Your task to perform on an android device: Open wifi settings Image 0: 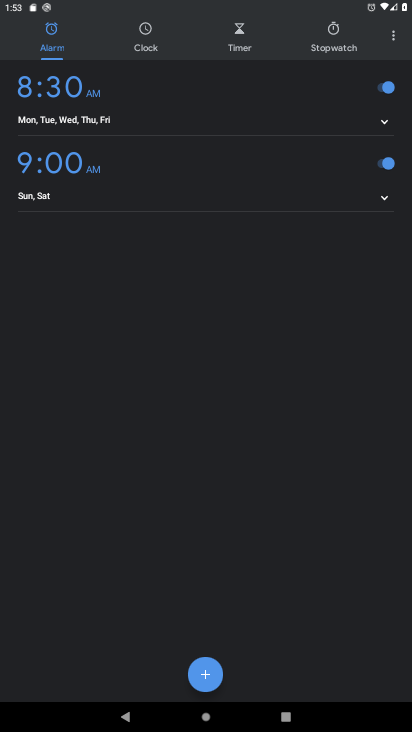
Step 0: press home button
Your task to perform on an android device: Open wifi settings Image 1: 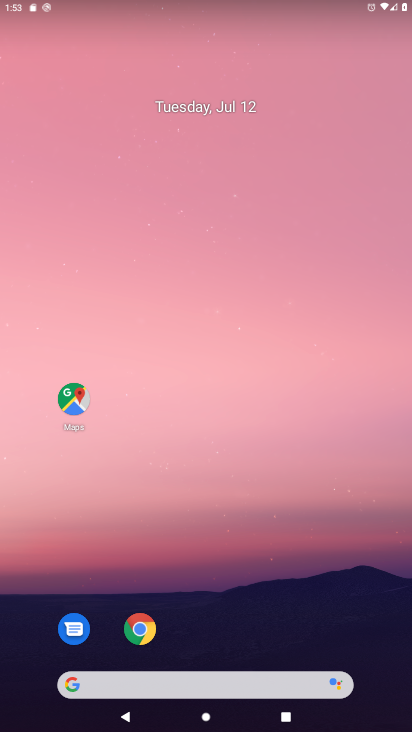
Step 1: drag from (284, 681) to (306, 351)
Your task to perform on an android device: Open wifi settings Image 2: 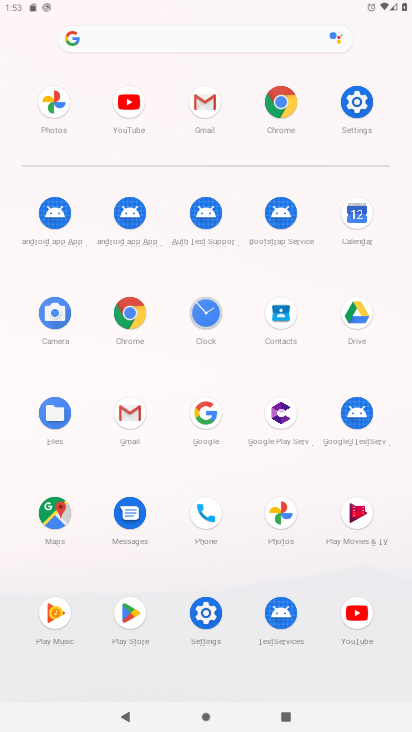
Step 2: click (364, 105)
Your task to perform on an android device: Open wifi settings Image 3: 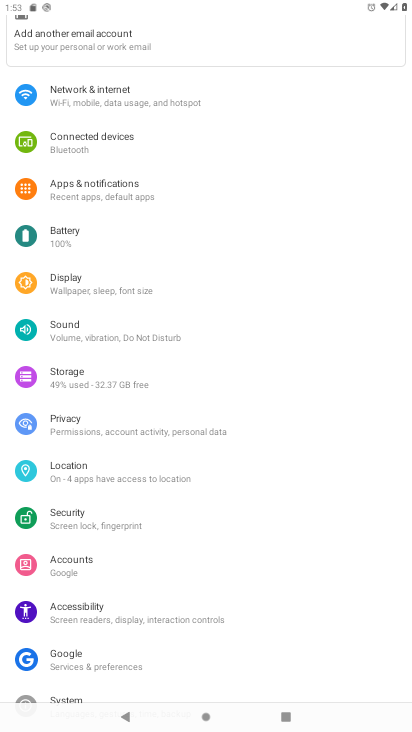
Step 3: click (164, 85)
Your task to perform on an android device: Open wifi settings Image 4: 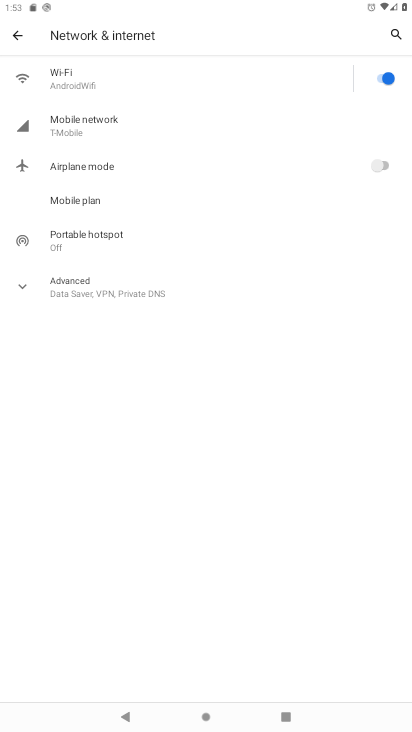
Step 4: task complete